Your task to perform on an android device: turn on the 24-hour format for clock Image 0: 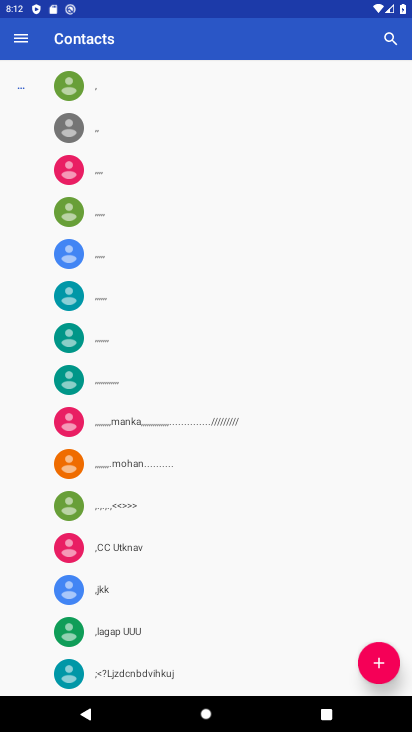
Step 0: press back button
Your task to perform on an android device: turn on the 24-hour format for clock Image 1: 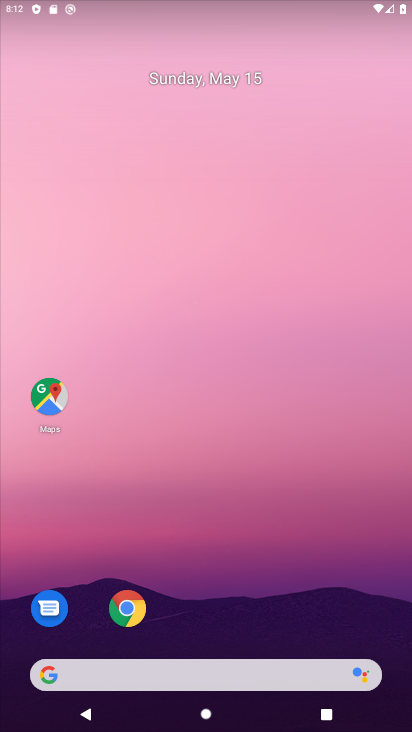
Step 1: drag from (209, 609) to (219, 85)
Your task to perform on an android device: turn on the 24-hour format for clock Image 2: 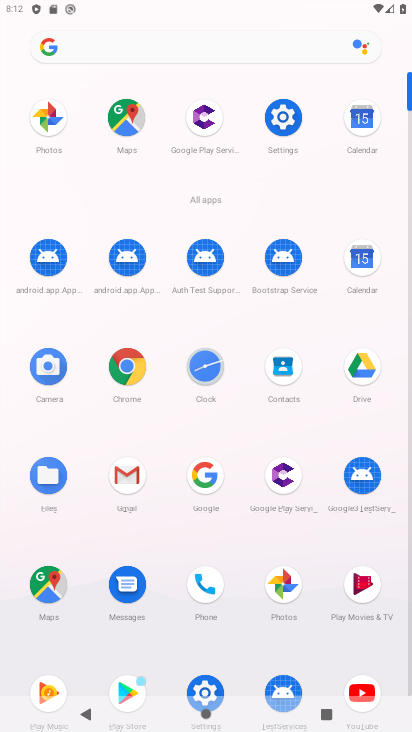
Step 2: click (204, 384)
Your task to perform on an android device: turn on the 24-hour format for clock Image 3: 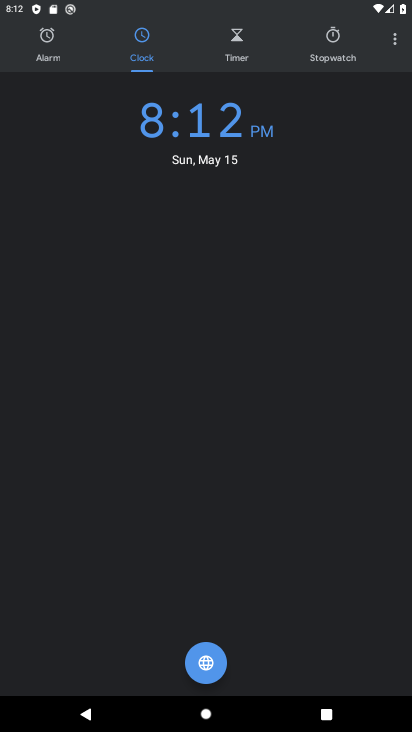
Step 3: click (392, 37)
Your task to perform on an android device: turn on the 24-hour format for clock Image 4: 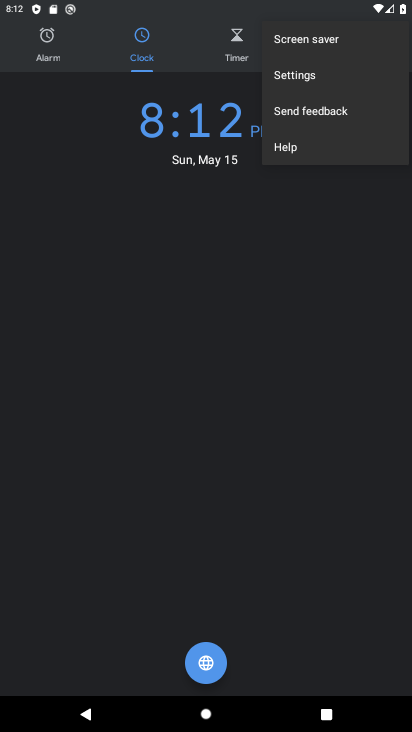
Step 4: click (320, 81)
Your task to perform on an android device: turn on the 24-hour format for clock Image 5: 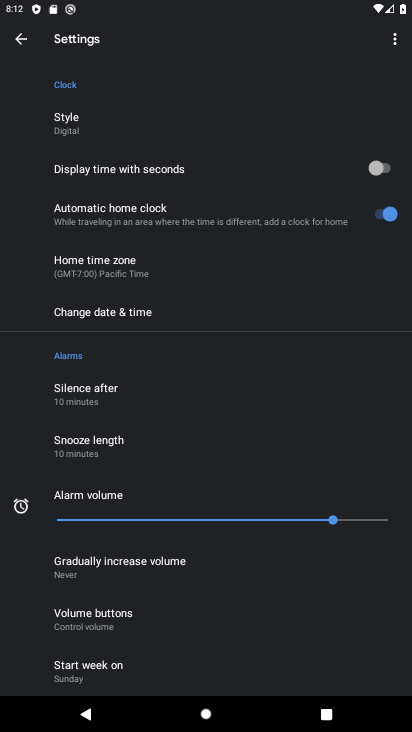
Step 5: click (113, 318)
Your task to perform on an android device: turn on the 24-hour format for clock Image 6: 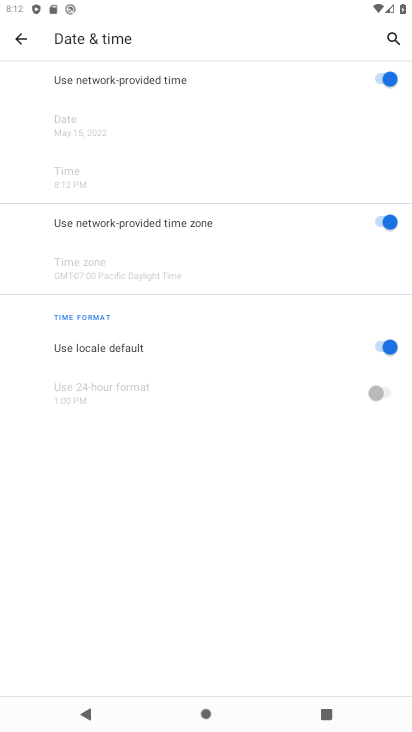
Step 6: click (390, 344)
Your task to perform on an android device: turn on the 24-hour format for clock Image 7: 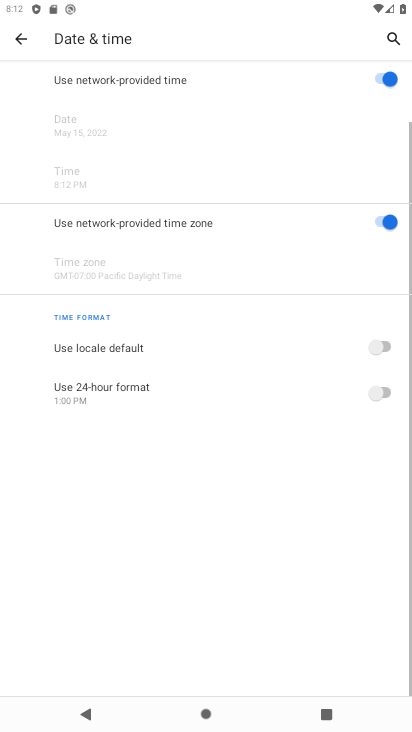
Step 7: click (390, 383)
Your task to perform on an android device: turn on the 24-hour format for clock Image 8: 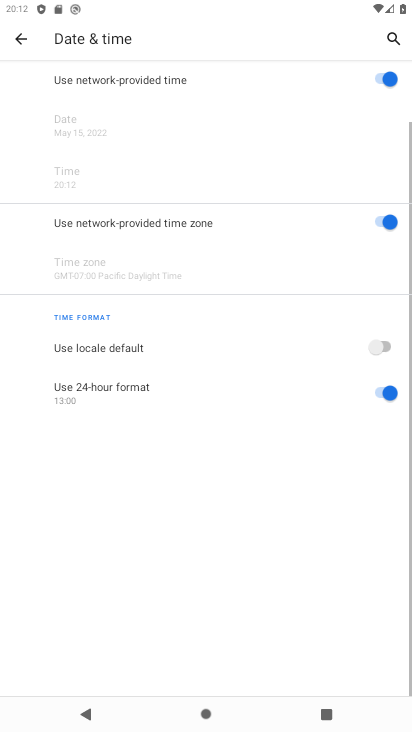
Step 8: task complete